Your task to perform on an android device: change text size in settings app Image 0: 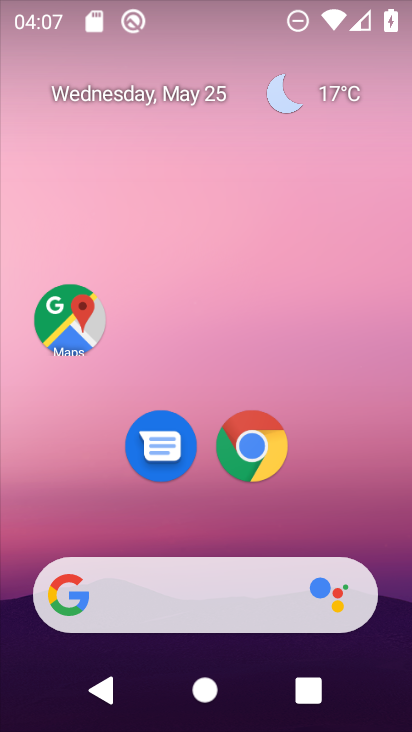
Step 0: drag from (216, 573) to (193, 387)
Your task to perform on an android device: change text size in settings app Image 1: 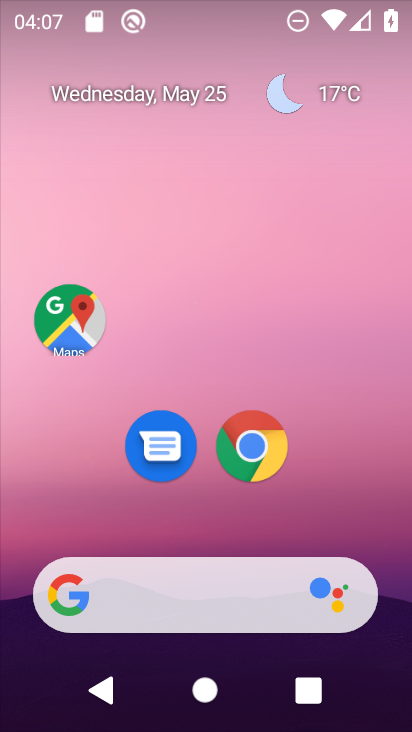
Step 1: drag from (243, 602) to (187, 213)
Your task to perform on an android device: change text size in settings app Image 2: 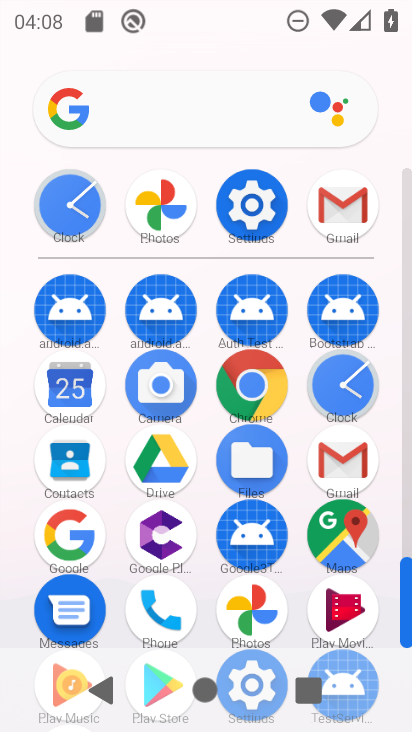
Step 2: click (241, 202)
Your task to perform on an android device: change text size in settings app Image 3: 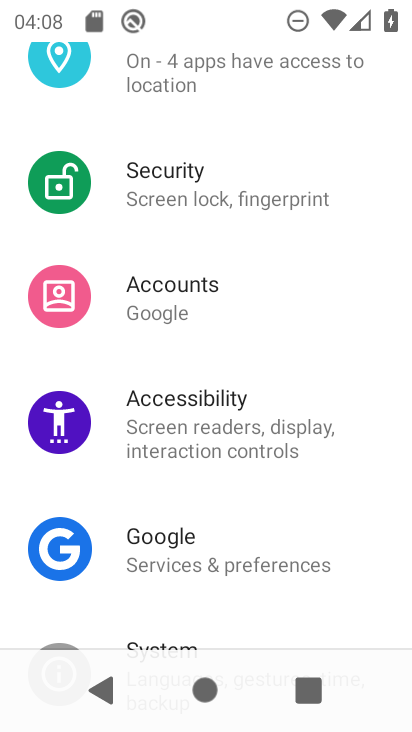
Step 3: drag from (171, 210) to (111, 689)
Your task to perform on an android device: change text size in settings app Image 4: 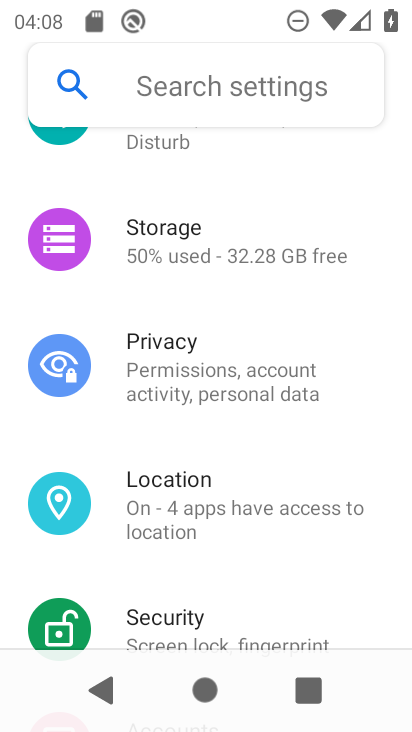
Step 4: drag from (196, 414) to (1, 685)
Your task to perform on an android device: change text size in settings app Image 5: 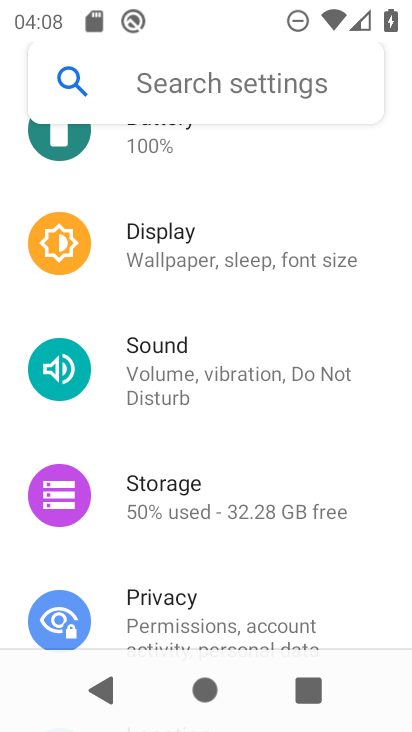
Step 5: click (173, 260)
Your task to perform on an android device: change text size in settings app Image 6: 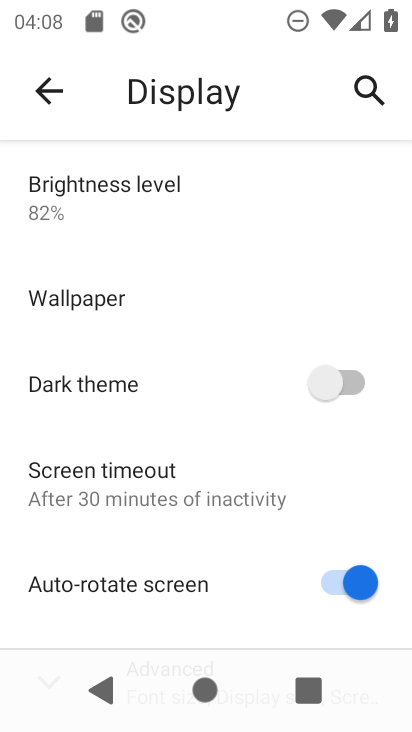
Step 6: task complete